Your task to perform on an android device: When is my next meeting? Image 0: 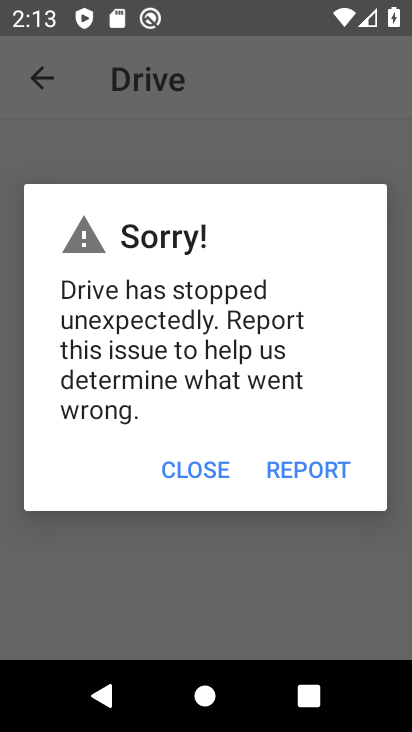
Step 0: press back button
Your task to perform on an android device: When is my next meeting? Image 1: 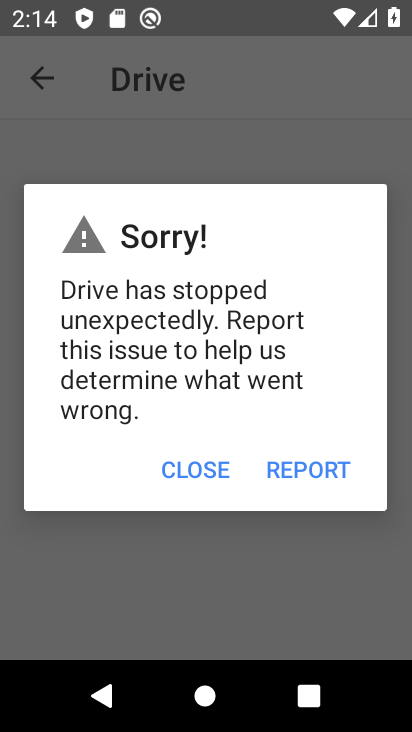
Step 1: press back button
Your task to perform on an android device: When is my next meeting? Image 2: 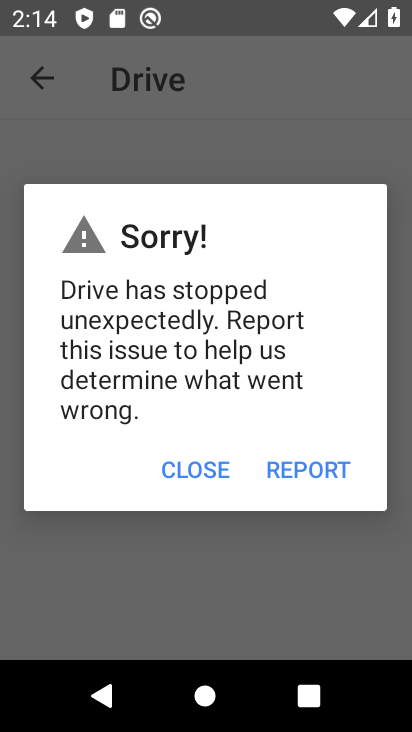
Step 2: press home button
Your task to perform on an android device: When is my next meeting? Image 3: 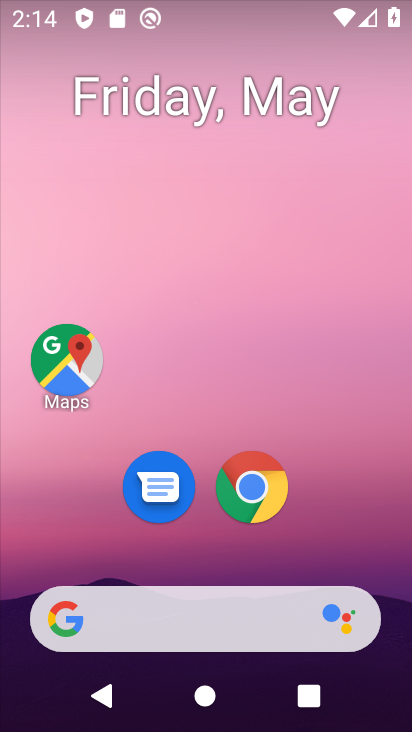
Step 3: drag from (233, 545) to (233, 43)
Your task to perform on an android device: When is my next meeting? Image 4: 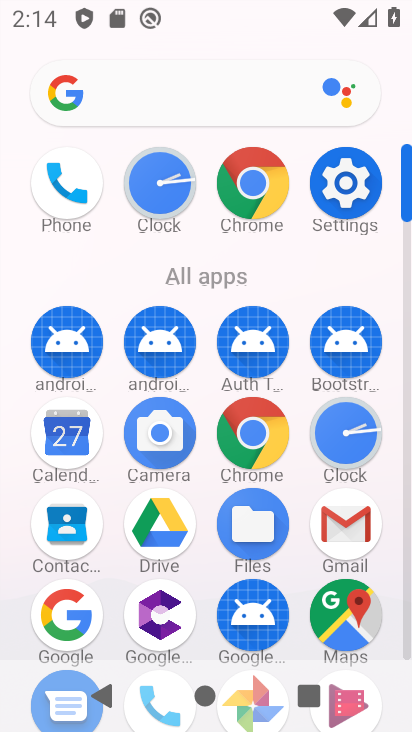
Step 4: click (74, 437)
Your task to perform on an android device: When is my next meeting? Image 5: 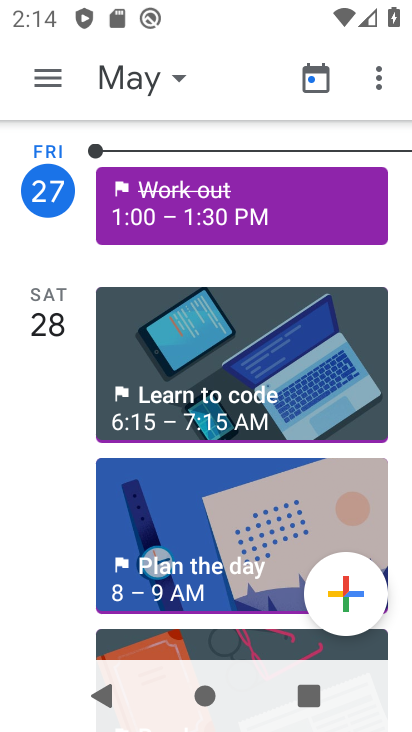
Step 5: task complete